Your task to perform on an android device: turn on wifi Image 0: 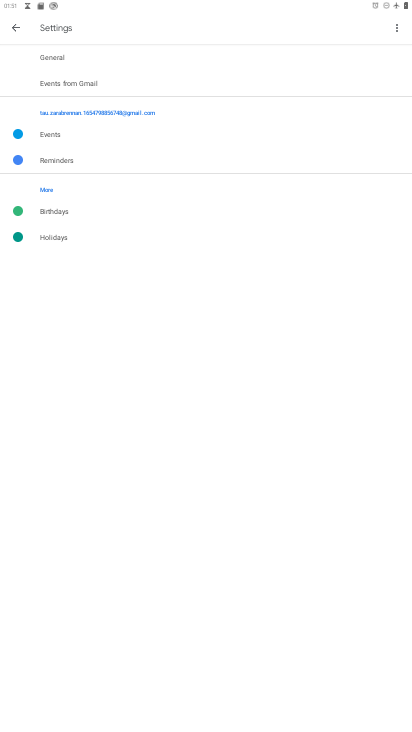
Step 0: press home button
Your task to perform on an android device: turn on wifi Image 1: 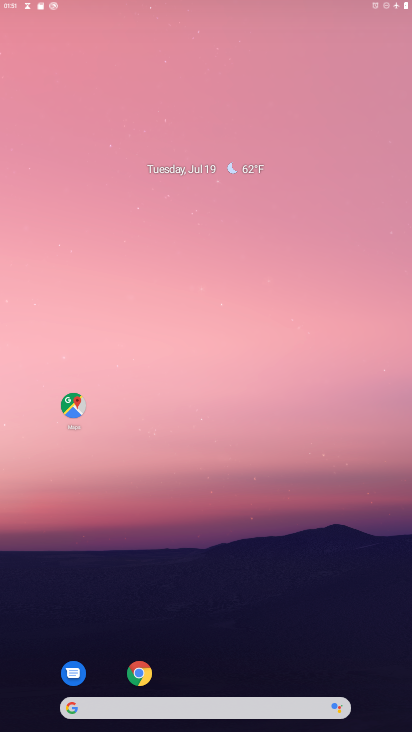
Step 1: drag from (241, 691) to (237, 166)
Your task to perform on an android device: turn on wifi Image 2: 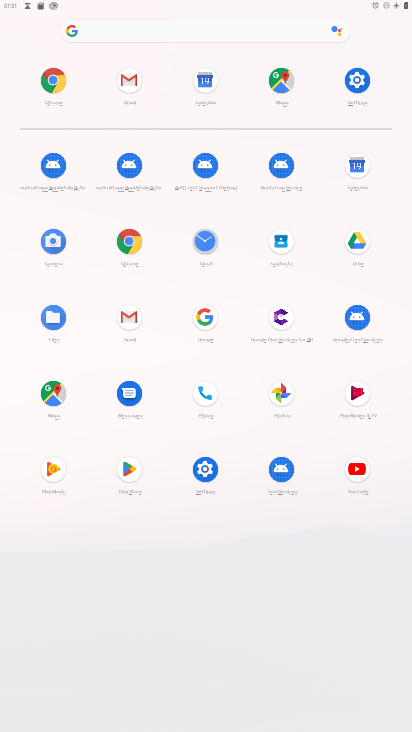
Step 2: click (349, 75)
Your task to perform on an android device: turn on wifi Image 3: 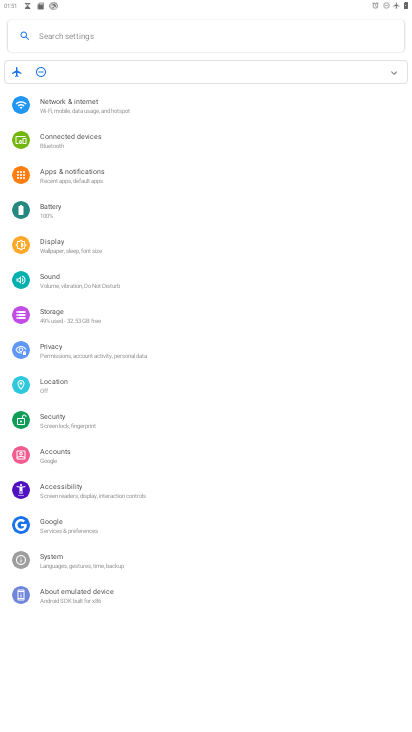
Step 3: click (86, 110)
Your task to perform on an android device: turn on wifi Image 4: 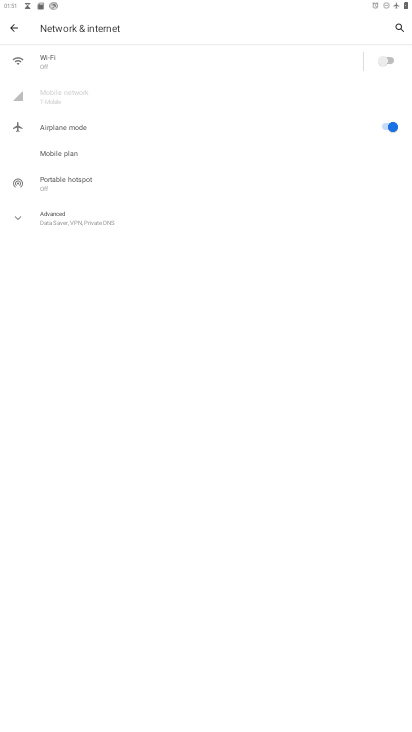
Step 4: click (380, 59)
Your task to perform on an android device: turn on wifi Image 5: 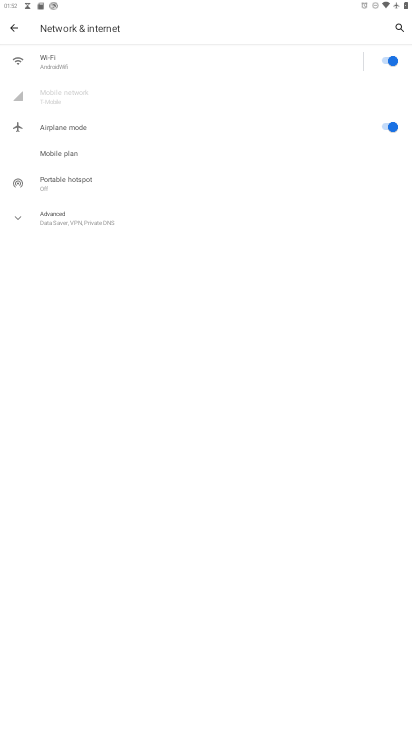
Step 5: task complete